Your task to perform on an android device: see sites visited before in the chrome app Image 0: 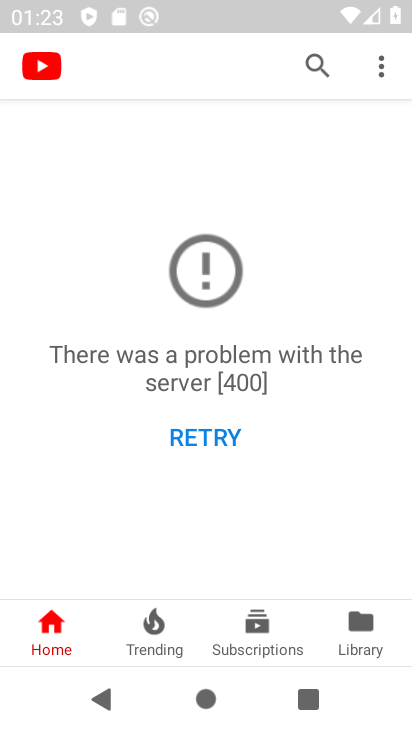
Step 0: press home button
Your task to perform on an android device: see sites visited before in the chrome app Image 1: 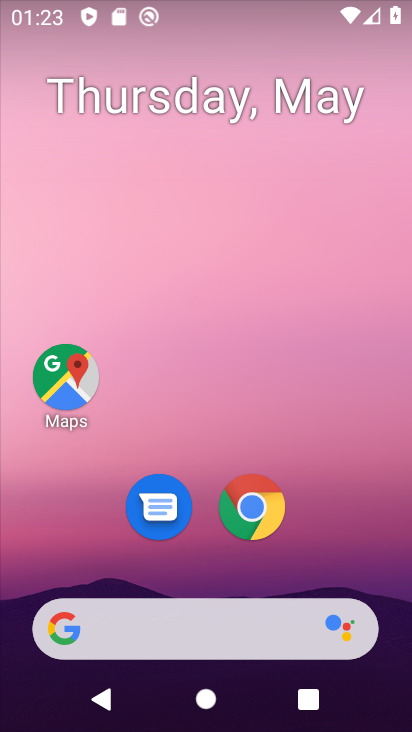
Step 1: drag from (324, 553) to (342, 264)
Your task to perform on an android device: see sites visited before in the chrome app Image 2: 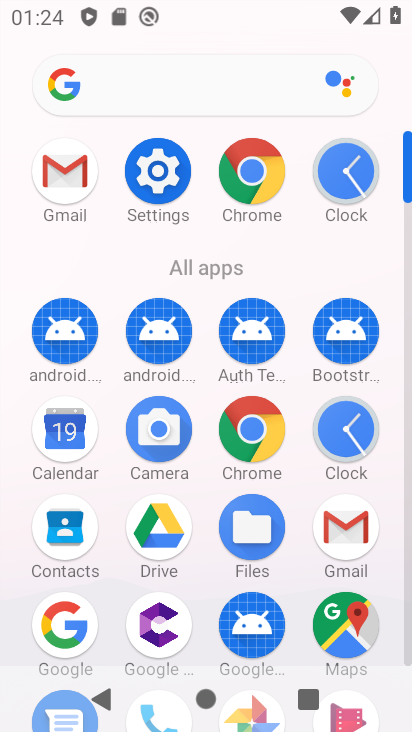
Step 2: click (258, 406)
Your task to perform on an android device: see sites visited before in the chrome app Image 3: 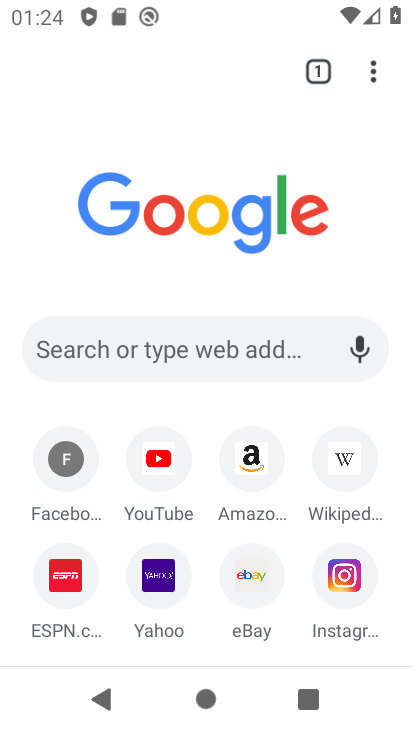
Step 3: click (369, 73)
Your task to perform on an android device: see sites visited before in the chrome app Image 4: 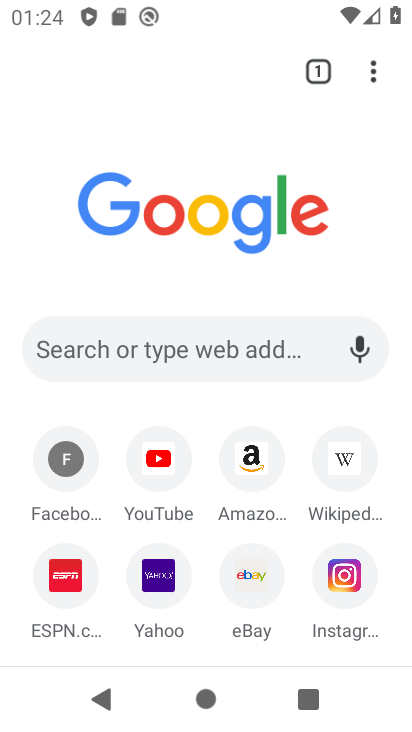
Step 4: click (382, 60)
Your task to perform on an android device: see sites visited before in the chrome app Image 5: 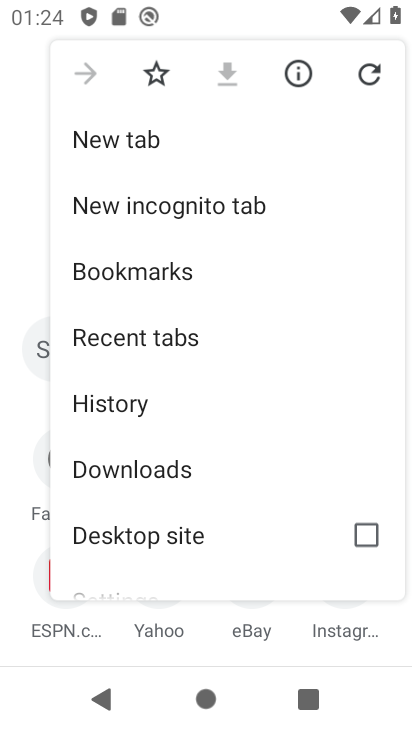
Step 5: click (128, 395)
Your task to perform on an android device: see sites visited before in the chrome app Image 6: 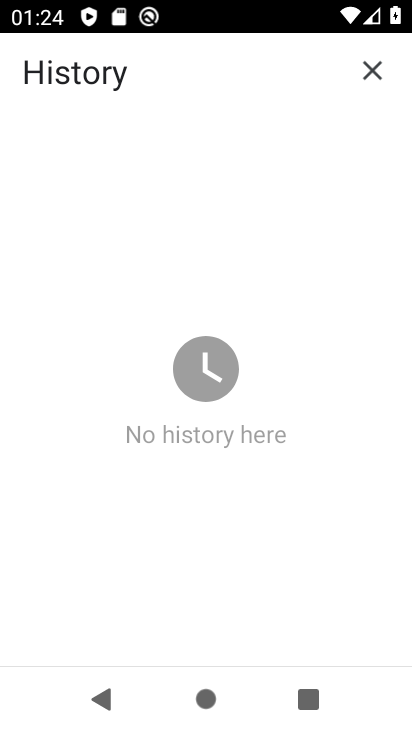
Step 6: task complete